Your task to perform on an android device: Open location settings Image 0: 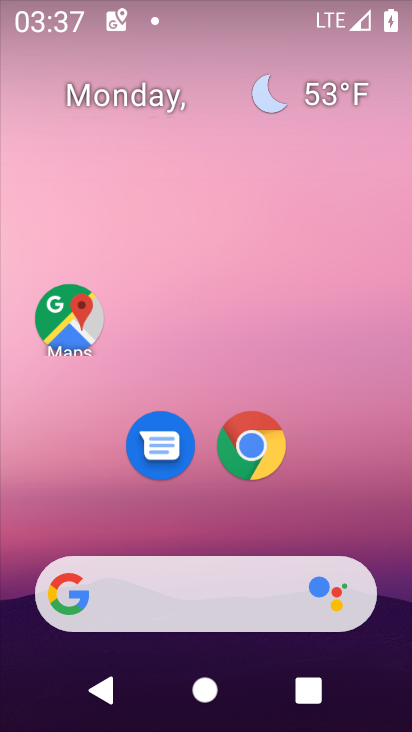
Step 0: drag from (196, 532) to (199, 2)
Your task to perform on an android device: Open location settings Image 1: 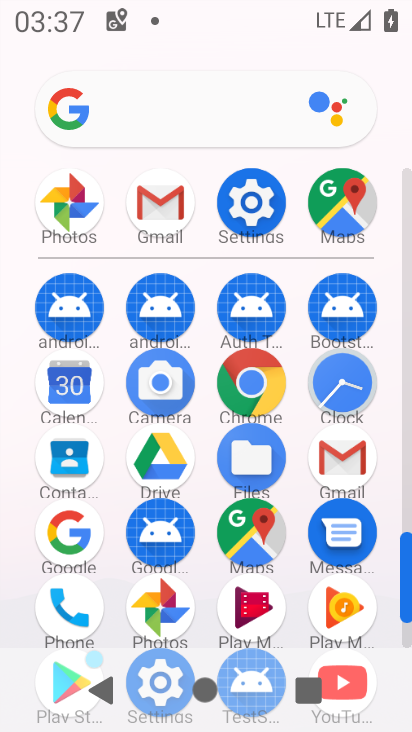
Step 1: click (250, 209)
Your task to perform on an android device: Open location settings Image 2: 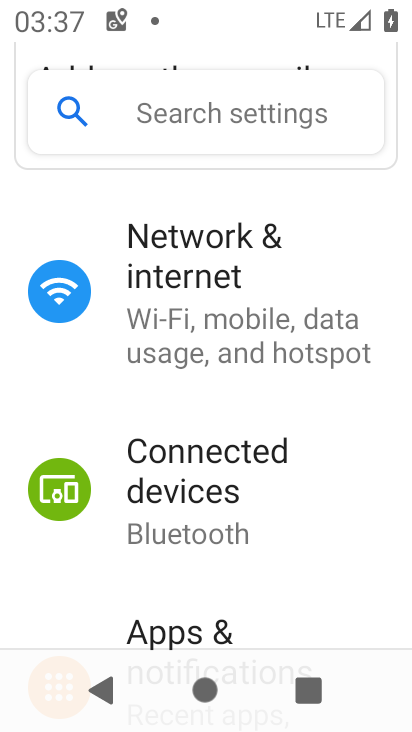
Step 2: drag from (262, 446) to (312, 201)
Your task to perform on an android device: Open location settings Image 3: 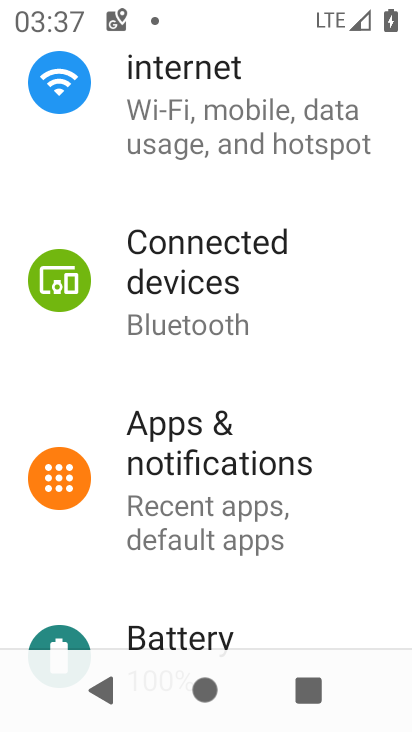
Step 3: drag from (261, 495) to (287, 192)
Your task to perform on an android device: Open location settings Image 4: 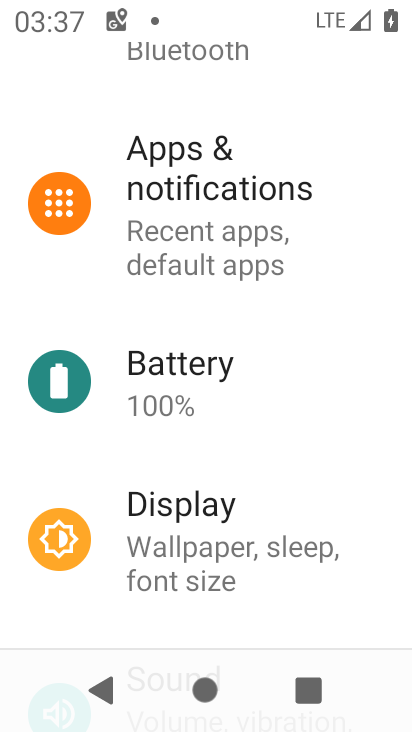
Step 4: drag from (223, 525) to (243, 123)
Your task to perform on an android device: Open location settings Image 5: 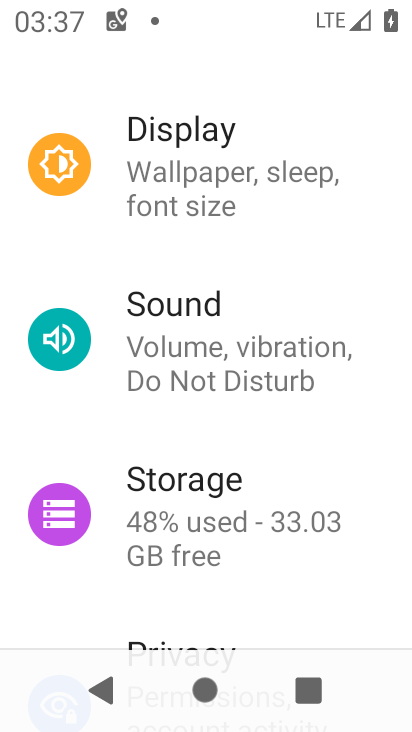
Step 5: drag from (193, 511) to (218, 163)
Your task to perform on an android device: Open location settings Image 6: 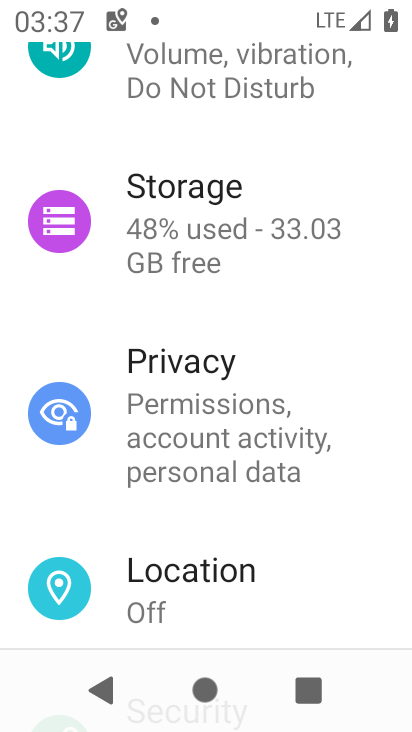
Step 6: click (190, 562)
Your task to perform on an android device: Open location settings Image 7: 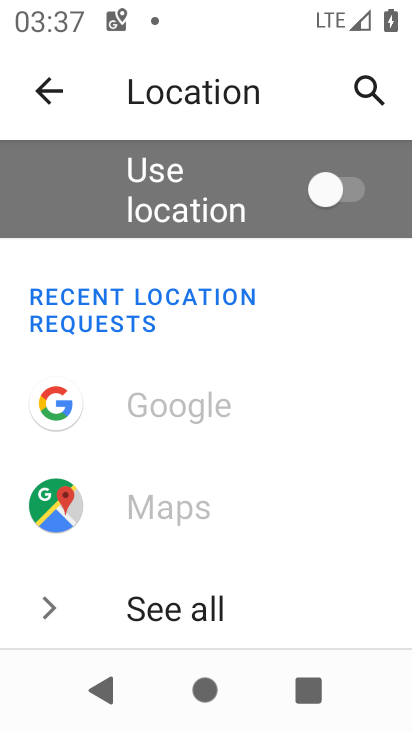
Step 7: task complete